Your task to perform on an android device: turn off improve location accuracy Image 0: 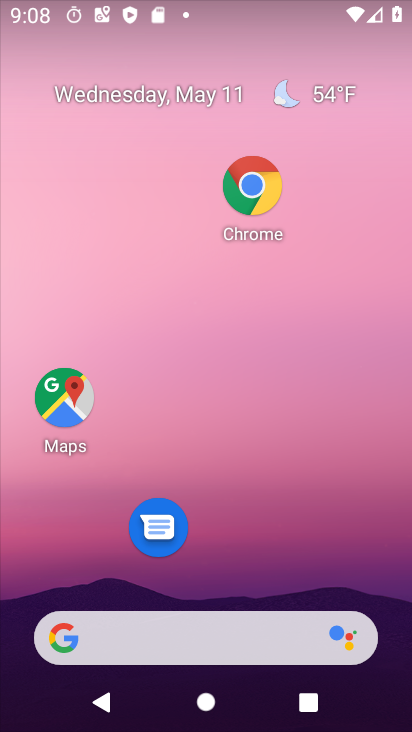
Step 0: drag from (268, 555) to (275, 33)
Your task to perform on an android device: turn off improve location accuracy Image 1: 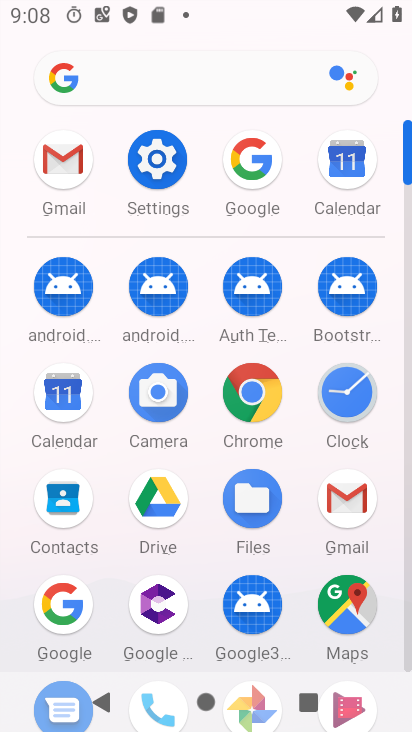
Step 1: click (161, 171)
Your task to perform on an android device: turn off improve location accuracy Image 2: 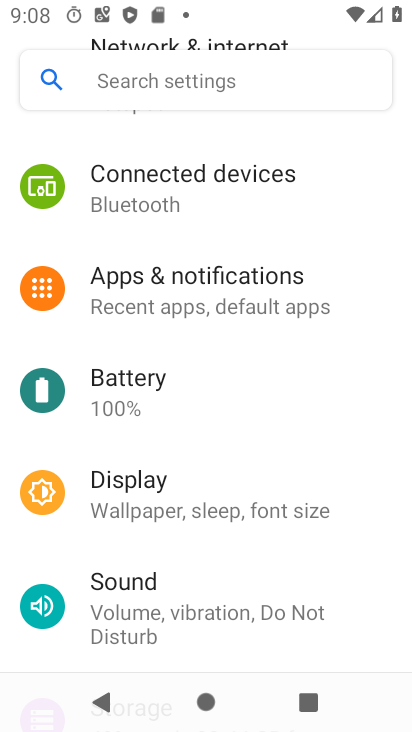
Step 2: drag from (223, 552) to (232, 29)
Your task to perform on an android device: turn off improve location accuracy Image 3: 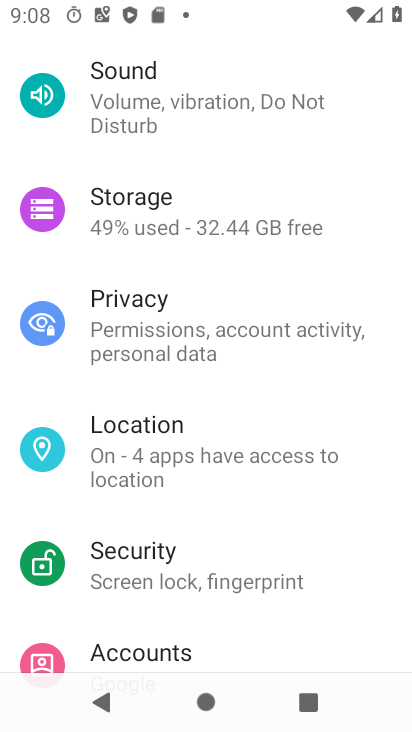
Step 3: click (225, 443)
Your task to perform on an android device: turn off improve location accuracy Image 4: 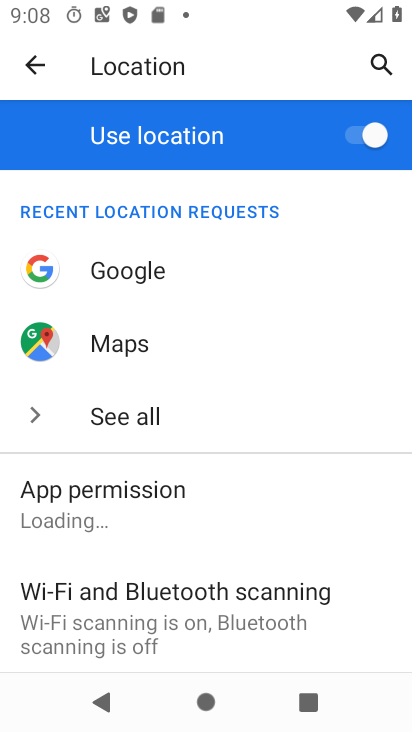
Step 4: drag from (261, 557) to (253, 155)
Your task to perform on an android device: turn off improve location accuracy Image 5: 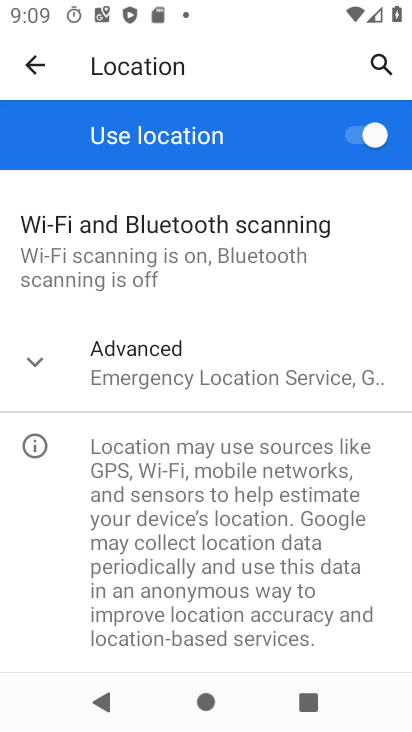
Step 5: click (121, 366)
Your task to perform on an android device: turn off improve location accuracy Image 6: 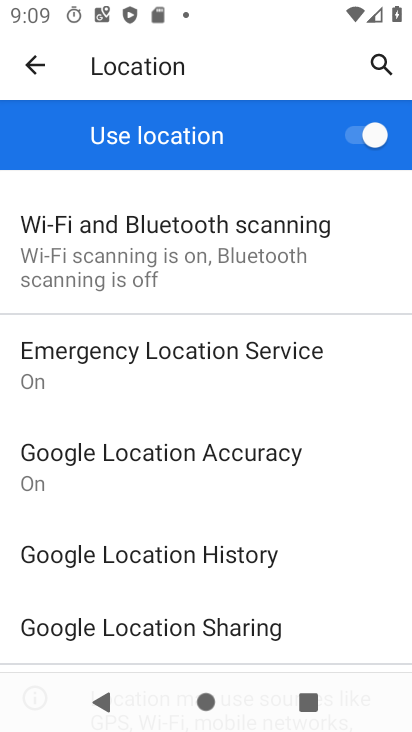
Step 6: click (166, 461)
Your task to perform on an android device: turn off improve location accuracy Image 7: 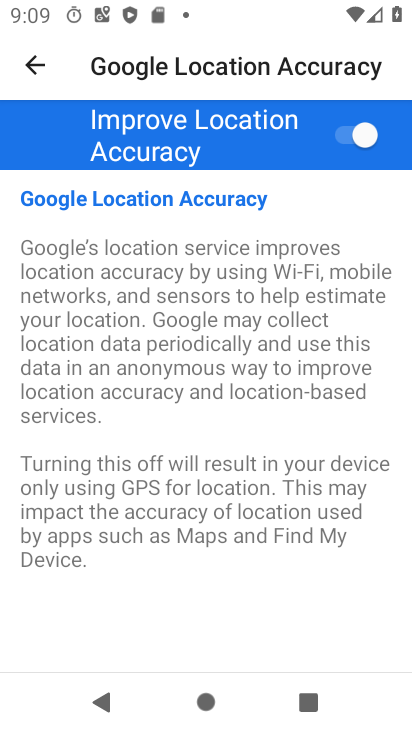
Step 7: click (366, 134)
Your task to perform on an android device: turn off improve location accuracy Image 8: 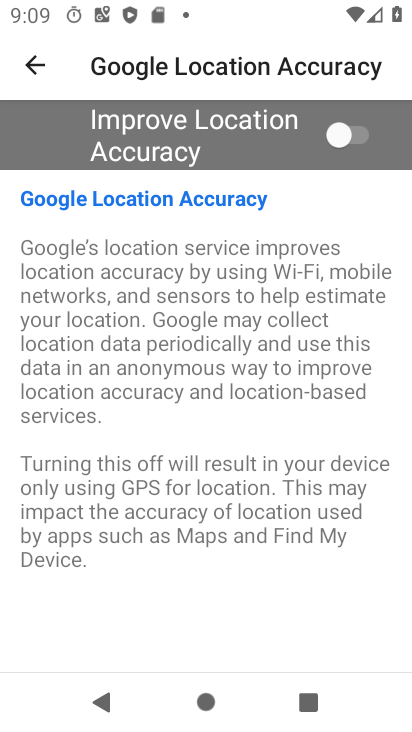
Step 8: task complete